Your task to perform on an android device: turn off translation in the chrome app Image 0: 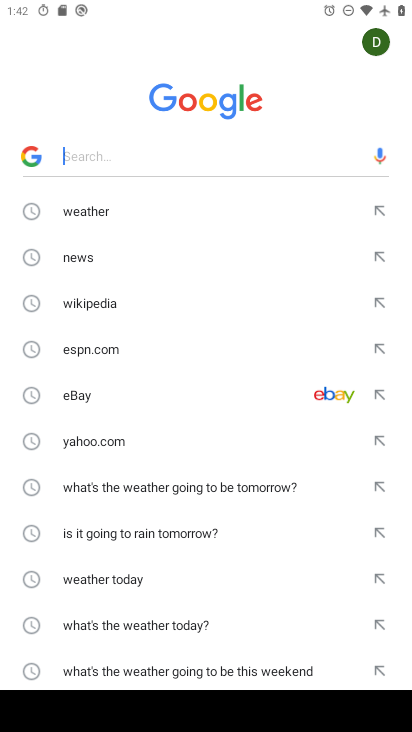
Step 0: press home button
Your task to perform on an android device: turn off translation in the chrome app Image 1: 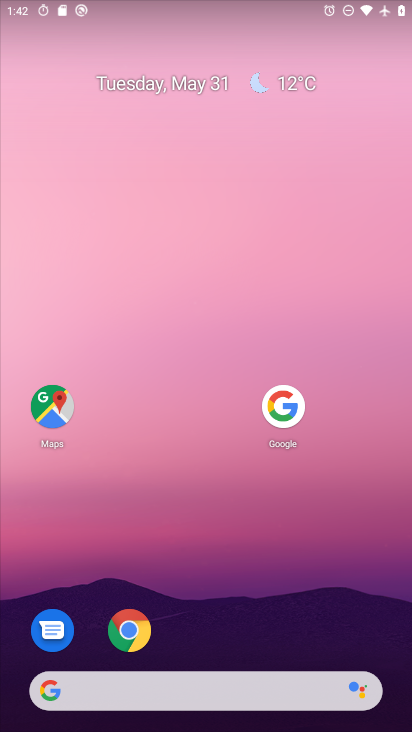
Step 1: click (137, 633)
Your task to perform on an android device: turn off translation in the chrome app Image 2: 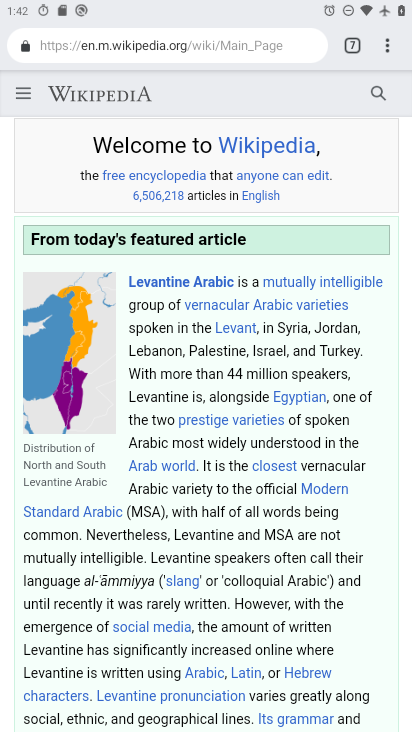
Step 2: drag from (386, 44) to (268, 603)
Your task to perform on an android device: turn off translation in the chrome app Image 3: 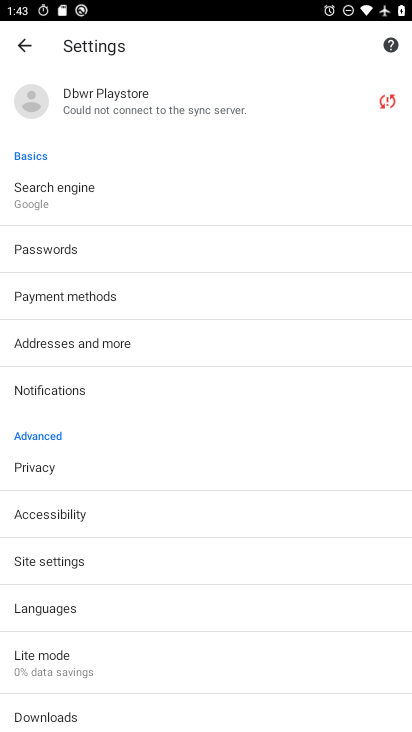
Step 3: drag from (113, 664) to (188, 446)
Your task to perform on an android device: turn off translation in the chrome app Image 4: 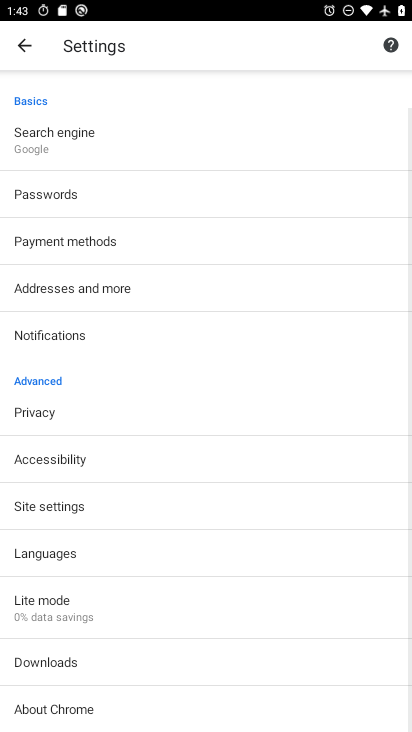
Step 4: click (96, 552)
Your task to perform on an android device: turn off translation in the chrome app Image 5: 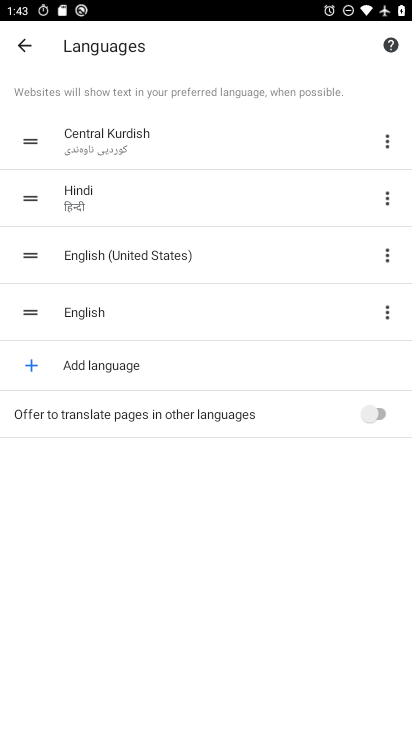
Step 5: click (381, 409)
Your task to perform on an android device: turn off translation in the chrome app Image 6: 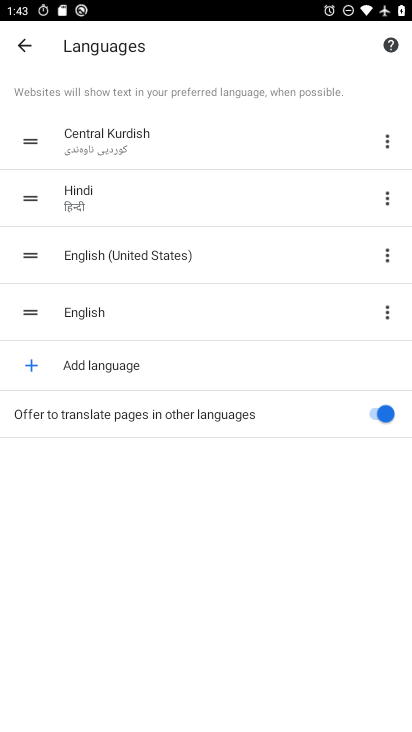
Step 6: task complete